Your task to perform on an android device: Search for "macbook pro 15 inch" on newegg.com, select the first entry, add it to the cart, then select checkout. Image 0: 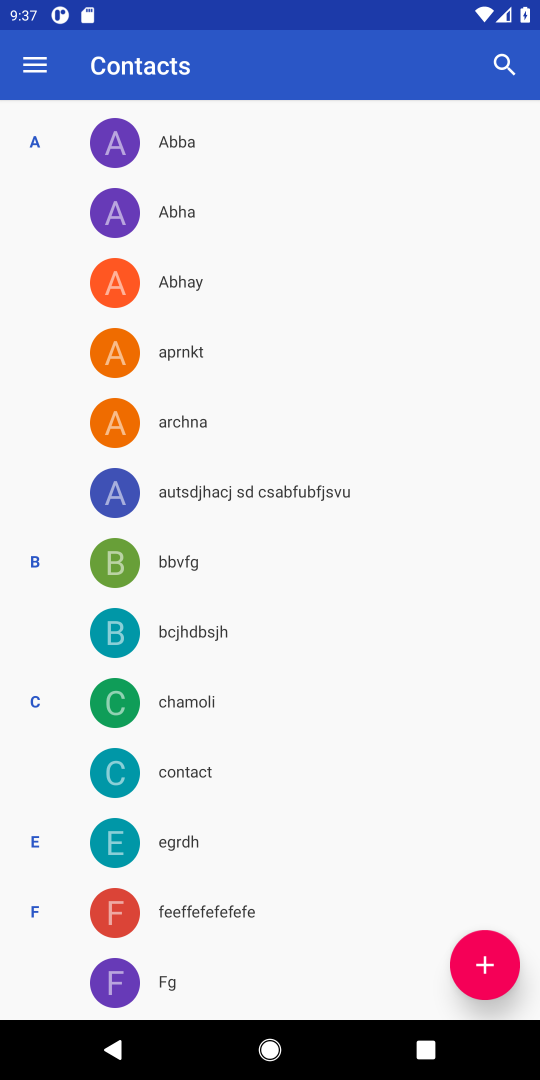
Step 0: press home button
Your task to perform on an android device: Search for "macbook pro 15 inch" on newegg.com, select the first entry, add it to the cart, then select checkout. Image 1: 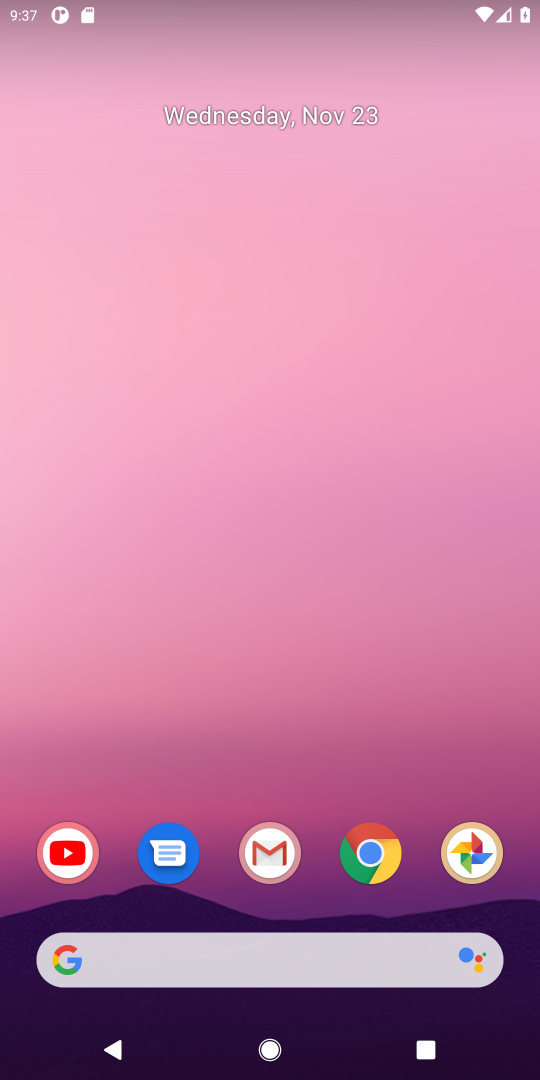
Step 1: click (372, 853)
Your task to perform on an android device: Search for "macbook pro 15 inch" on newegg.com, select the first entry, add it to the cart, then select checkout. Image 2: 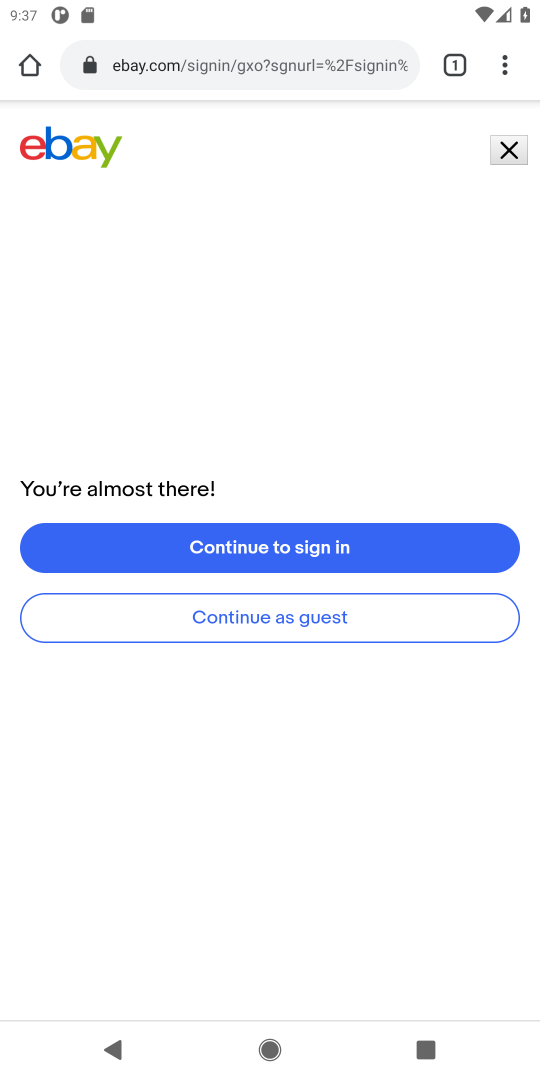
Step 2: click (196, 76)
Your task to perform on an android device: Search for "macbook pro 15 inch" on newegg.com, select the first entry, add it to the cart, then select checkout. Image 3: 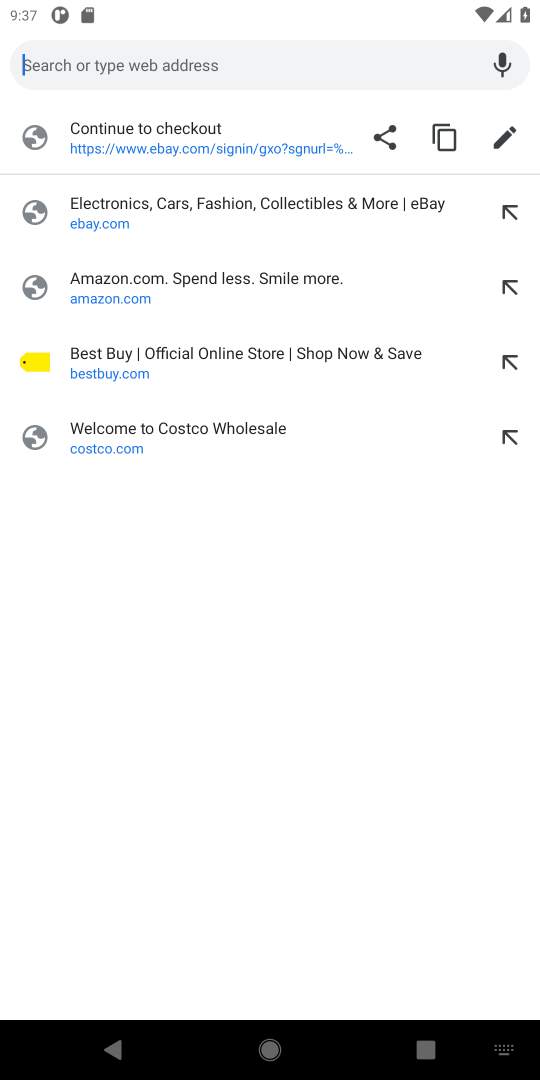
Step 3: type "newegg.com"
Your task to perform on an android device: Search for "macbook pro 15 inch" on newegg.com, select the first entry, add it to the cart, then select checkout. Image 4: 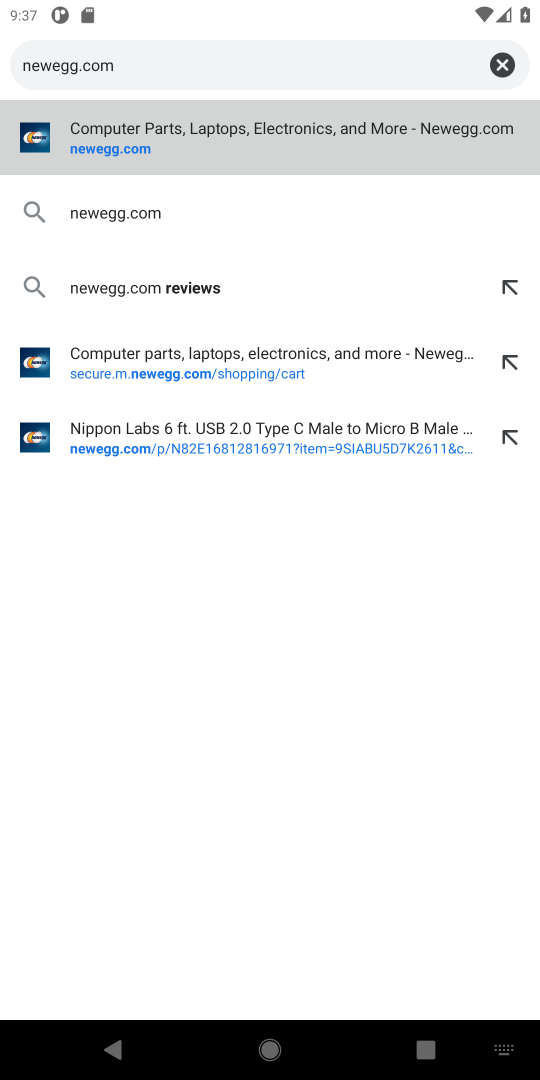
Step 4: click (99, 137)
Your task to perform on an android device: Search for "macbook pro 15 inch" on newegg.com, select the first entry, add it to the cart, then select checkout. Image 5: 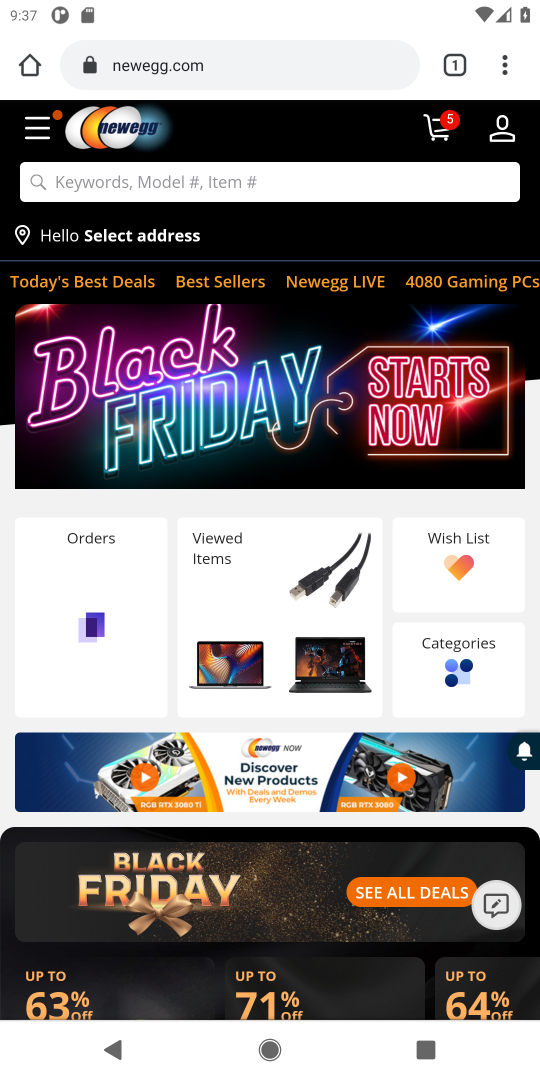
Step 5: click (165, 185)
Your task to perform on an android device: Search for "macbook pro 15 inch" on newegg.com, select the first entry, add it to the cart, then select checkout. Image 6: 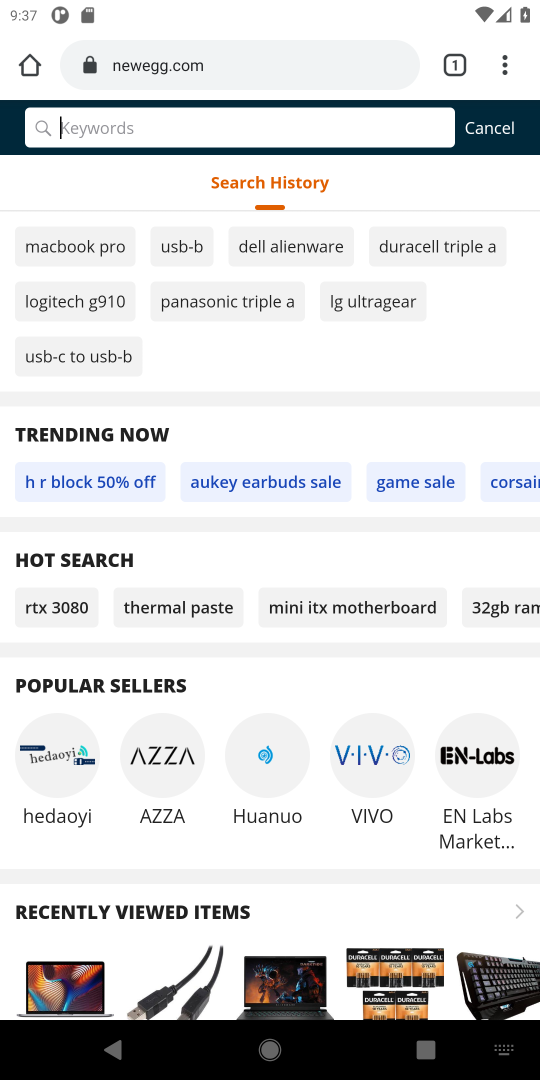
Step 6: type "macbook pro 15 inch"
Your task to perform on an android device: Search for "macbook pro 15 inch" on newegg.com, select the first entry, add it to the cart, then select checkout. Image 7: 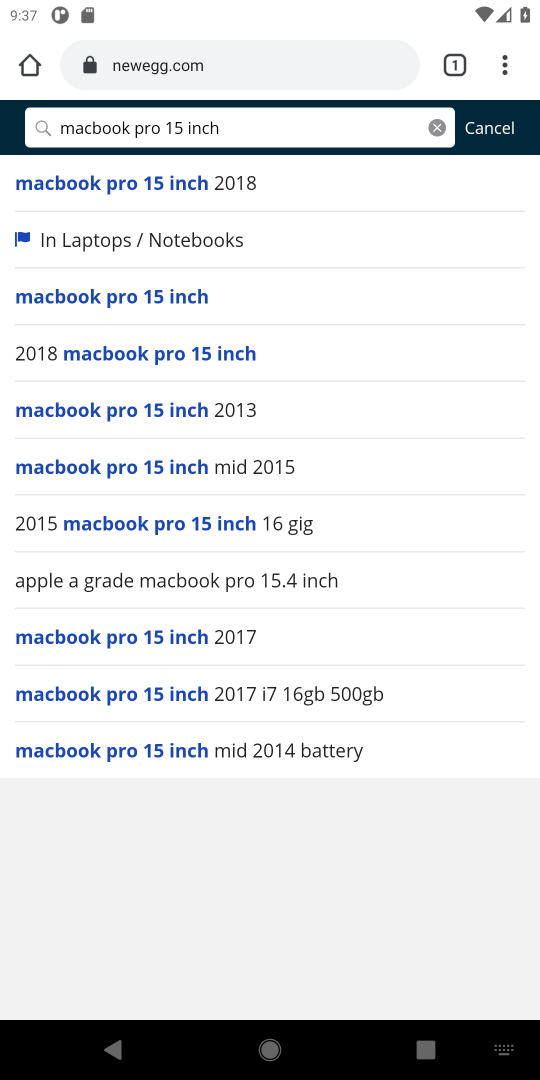
Step 7: click (165, 186)
Your task to perform on an android device: Search for "macbook pro 15 inch" on newegg.com, select the first entry, add it to the cart, then select checkout. Image 8: 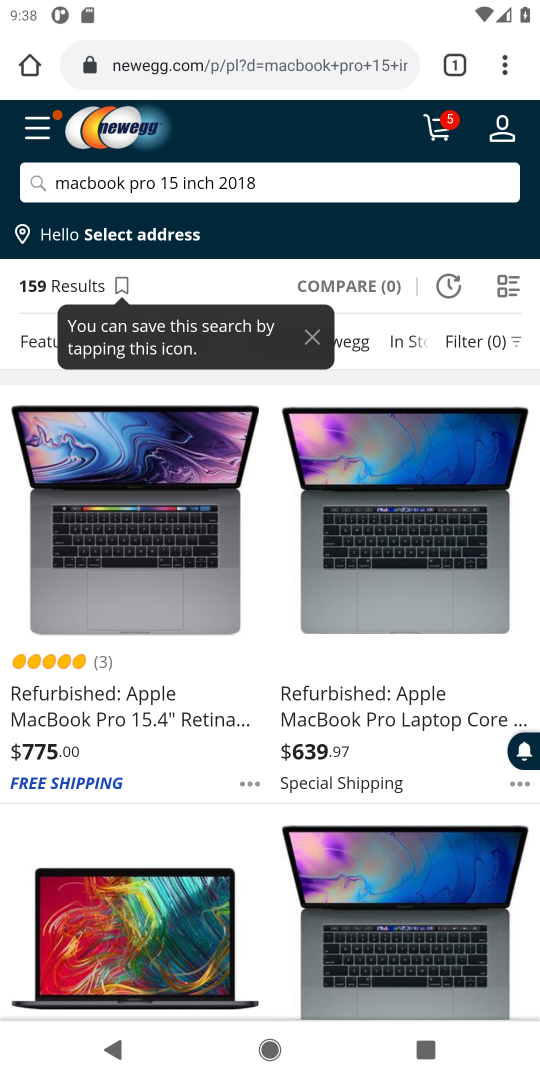
Step 8: click (124, 524)
Your task to perform on an android device: Search for "macbook pro 15 inch" on newegg.com, select the first entry, add it to the cart, then select checkout. Image 9: 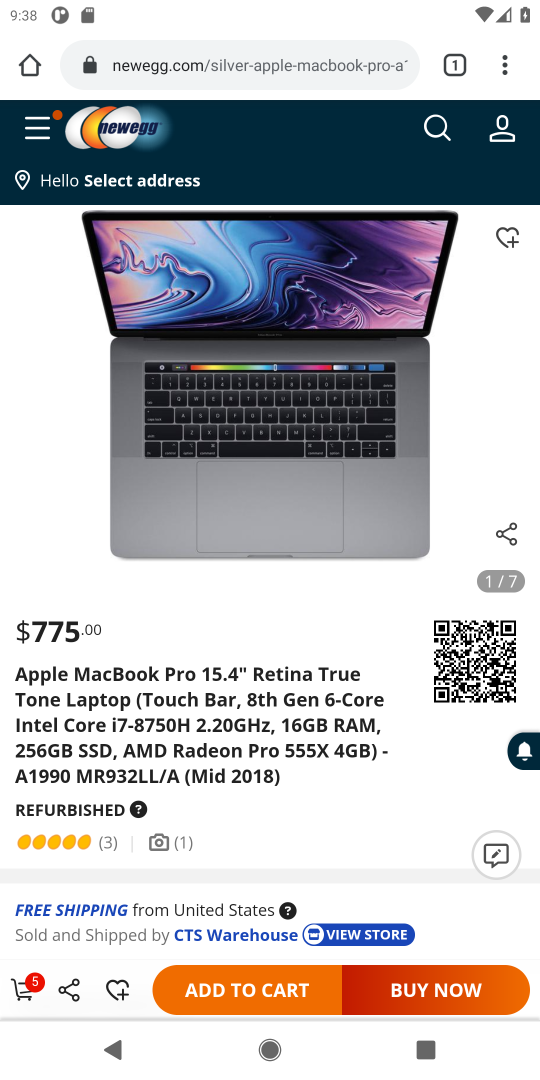
Step 9: click (228, 985)
Your task to perform on an android device: Search for "macbook pro 15 inch" on newegg.com, select the first entry, add it to the cart, then select checkout. Image 10: 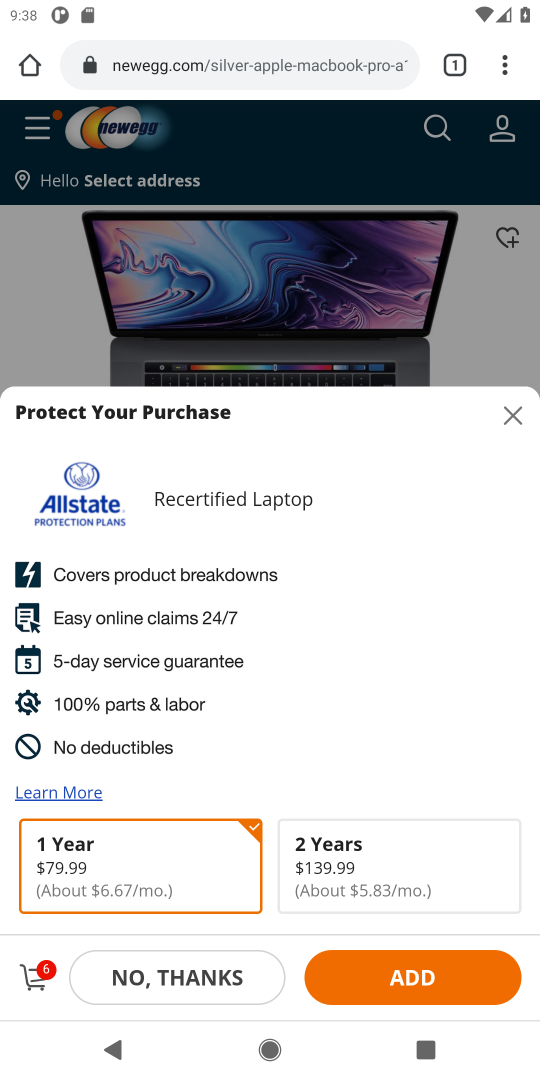
Step 10: click (38, 984)
Your task to perform on an android device: Search for "macbook pro 15 inch" on newegg.com, select the first entry, add it to the cart, then select checkout. Image 11: 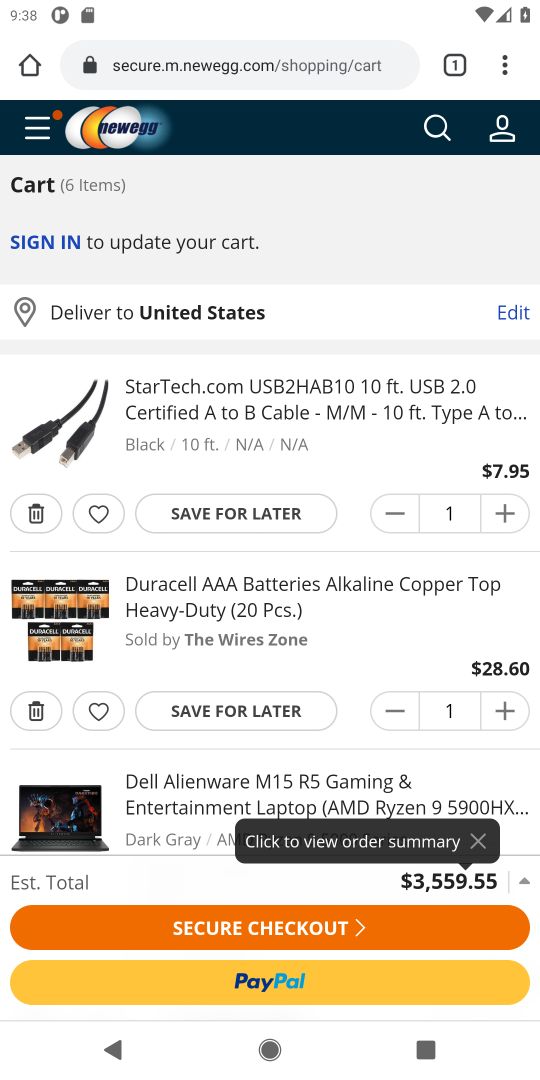
Step 11: click (281, 931)
Your task to perform on an android device: Search for "macbook pro 15 inch" on newegg.com, select the first entry, add it to the cart, then select checkout. Image 12: 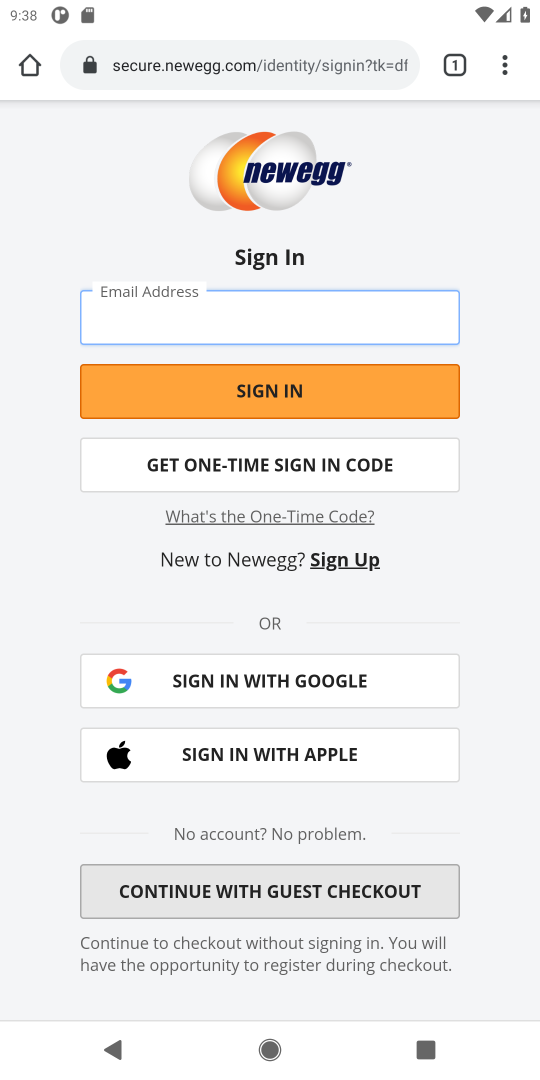
Step 12: task complete